Your task to perform on an android device: add a contact in the contacts app Image 0: 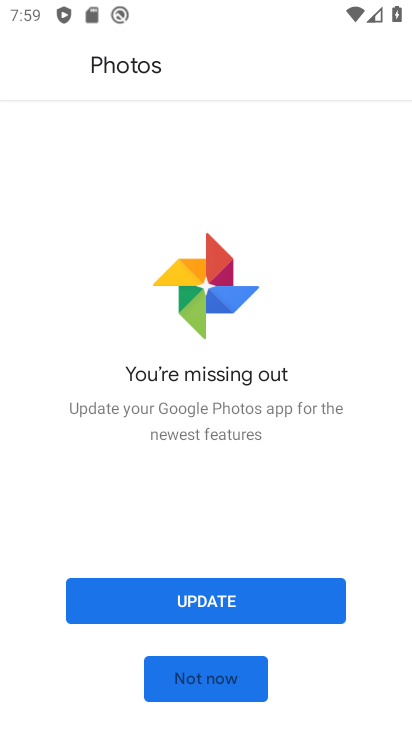
Step 0: press home button
Your task to perform on an android device: add a contact in the contacts app Image 1: 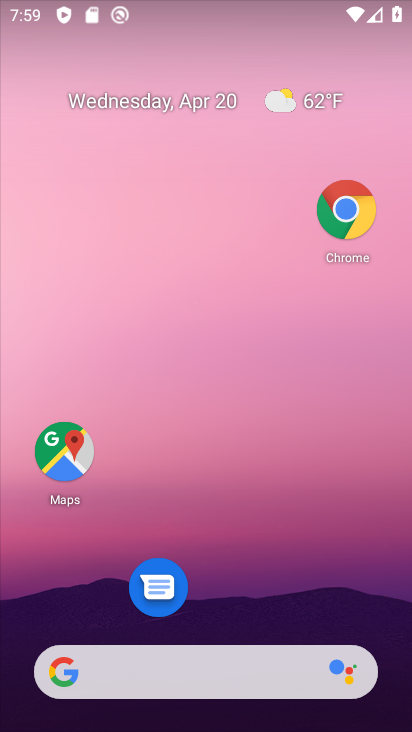
Step 1: drag from (301, 611) to (241, 52)
Your task to perform on an android device: add a contact in the contacts app Image 2: 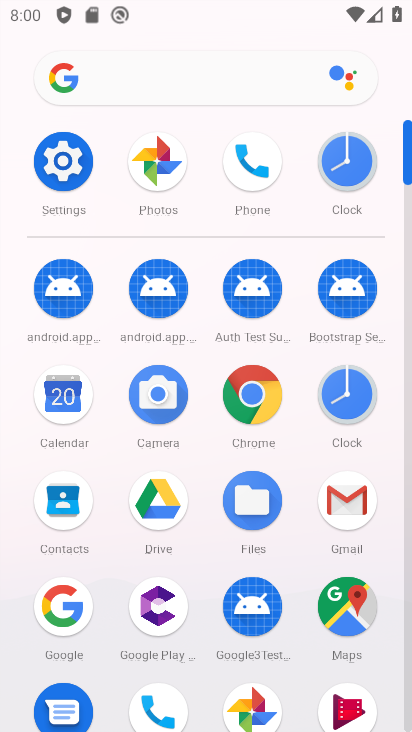
Step 2: click (58, 492)
Your task to perform on an android device: add a contact in the contacts app Image 3: 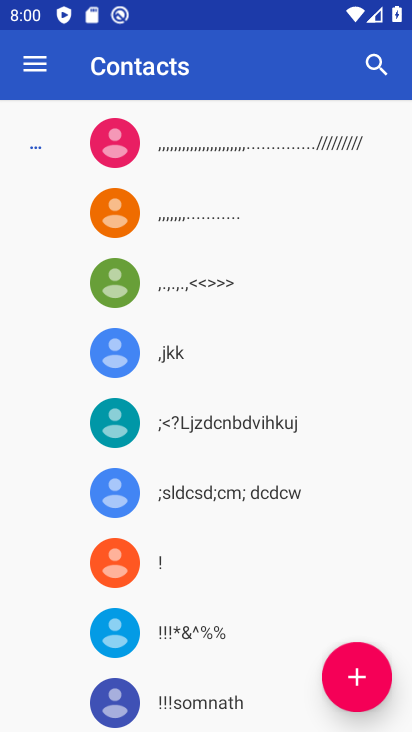
Step 3: click (372, 687)
Your task to perform on an android device: add a contact in the contacts app Image 4: 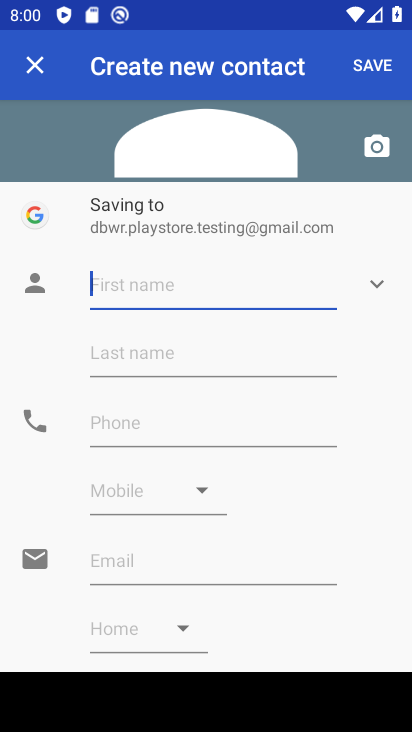
Step 4: type "hik"
Your task to perform on an android device: add a contact in the contacts app Image 5: 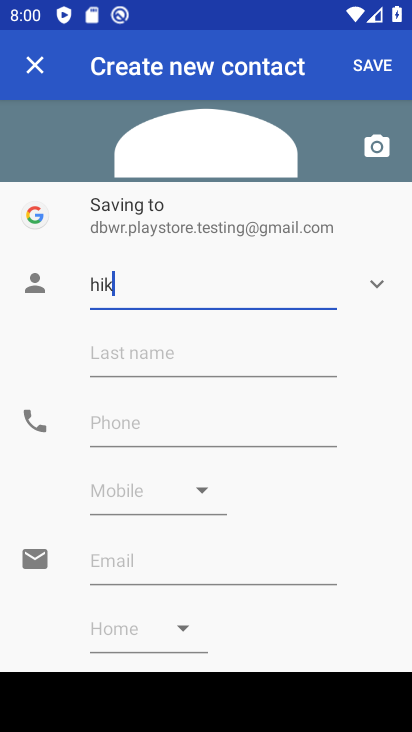
Step 5: click (140, 425)
Your task to perform on an android device: add a contact in the contacts app Image 6: 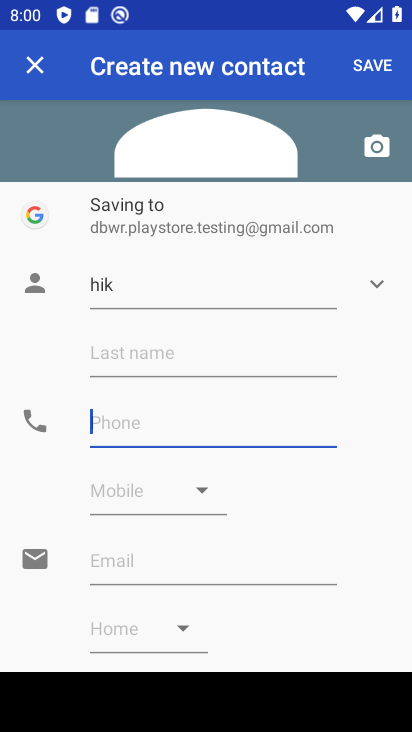
Step 6: type "8765456789"
Your task to perform on an android device: add a contact in the contacts app Image 7: 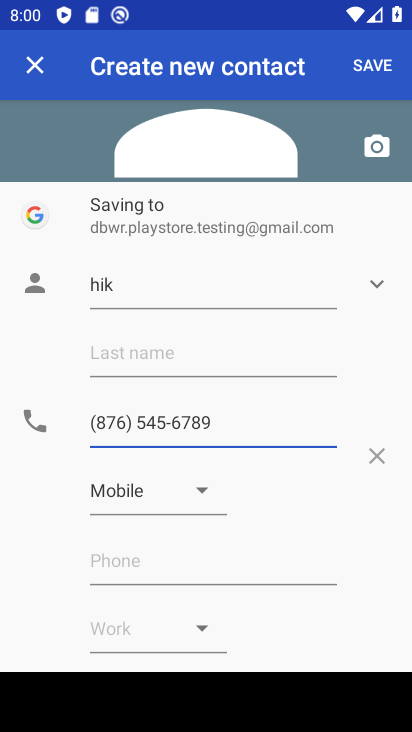
Step 7: click (384, 76)
Your task to perform on an android device: add a contact in the contacts app Image 8: 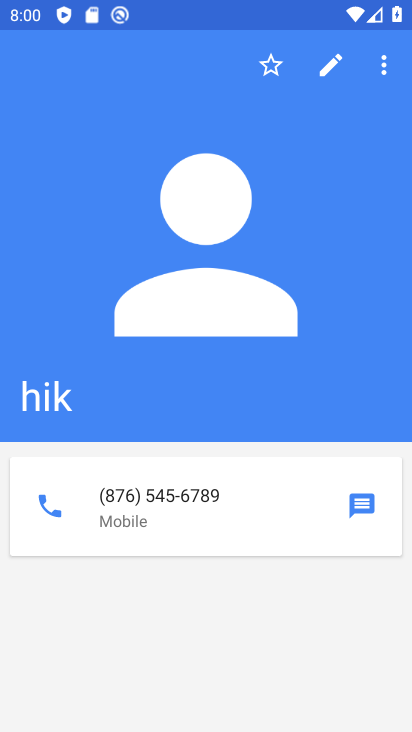
Step 8: task complete